Your task to perform on an android device: snooze an email in the gmail app Image 0: 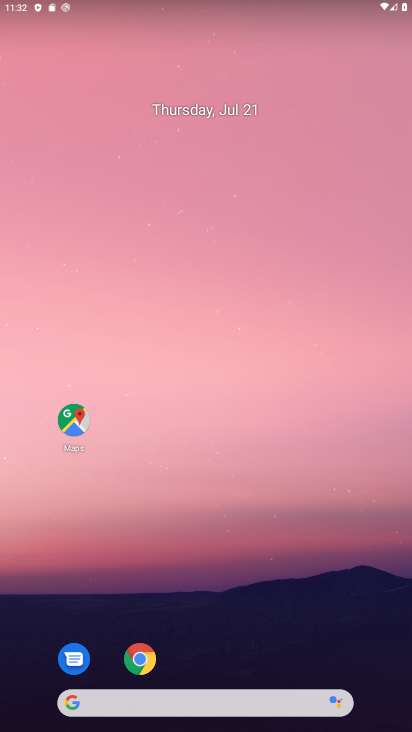
Step 0: drag from (235, 663) to (209, 198)
Your task to perform on an android device: snooze an email in the gmail app Image 1: 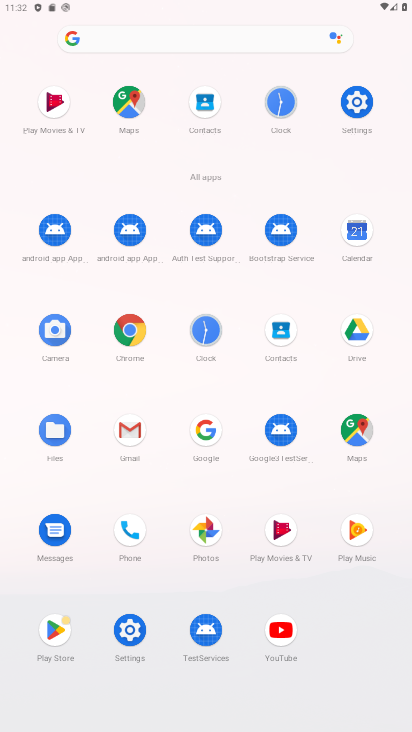
Step 1: click (136, 431)
Your task to perform on an android device: snooze an email in the gmail app Image 2: 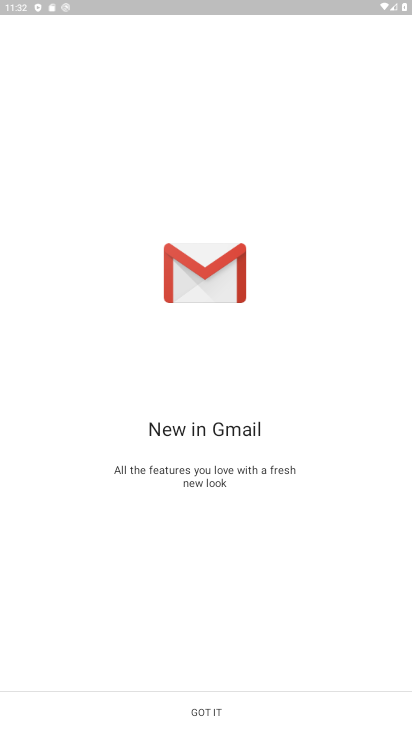
Step 2: click (277, 708)
Your task to perform on an android device: snooze an email in the gmail app Image 3: 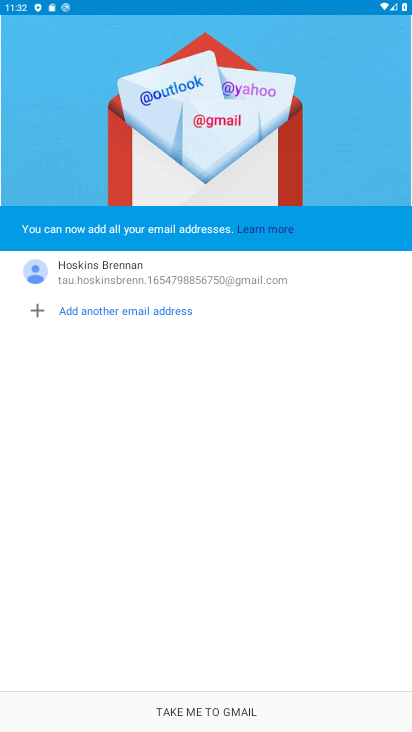
Step 3: click (277, 708)
Your task to perform on an android device: snooze an email in the gmail app Image 4: 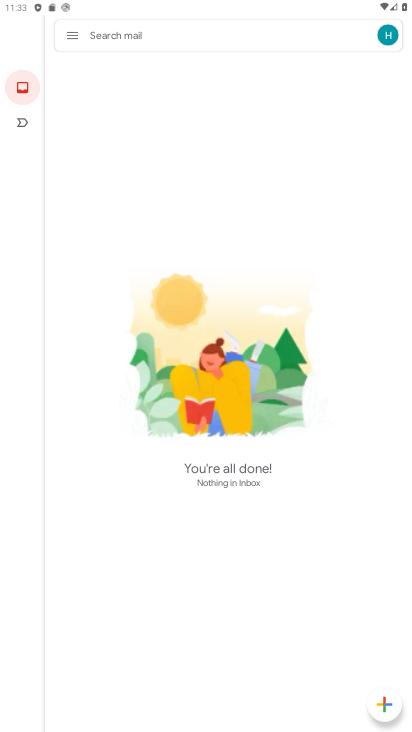
Step 4: task complete